Your task to perform on an android device: Open the calendar app, open the side menu, and click the "Day" option Image 0: 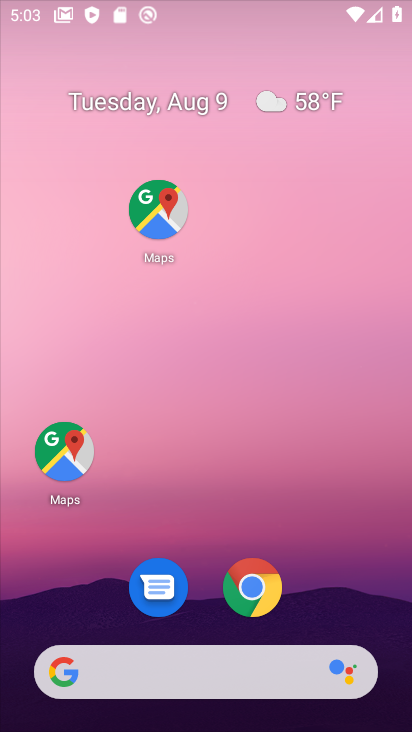
Step 0: drag from (275, 543) to (237, 296)
Your task to perform on an android device: Open the calendar app, open the side menu, and click the "Day" option Image 1: 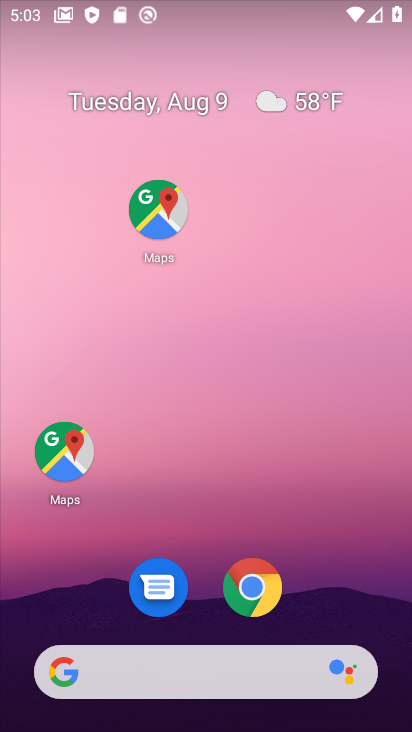
Step 1: drag from (195, 659) to (143, 202)
Your task to perform on an android device: Open the calendar app, open the side menu, and click the "Day" option Image 2: 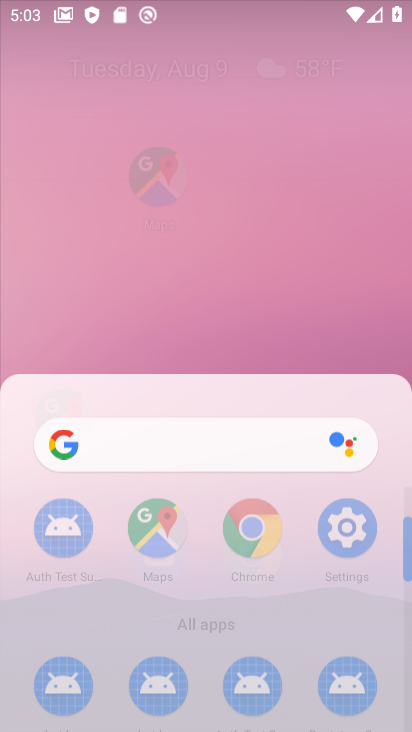
Step 2: drag from (210, 504) to (247, 215)
Your task to perform on an android device: Open the calendar app, open the side menu, and click the "Day" option Image 3: 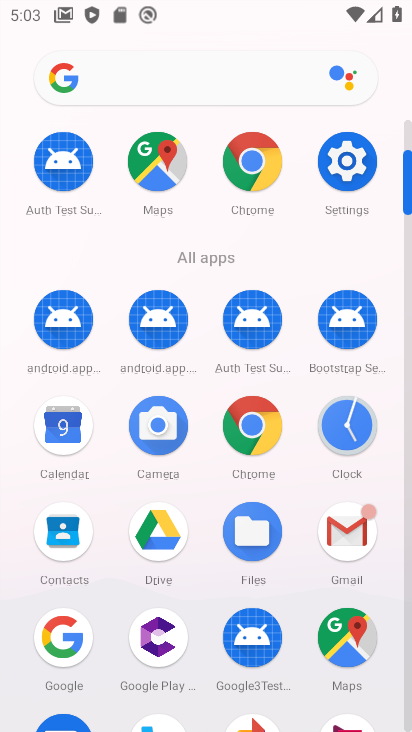
Step 3: click (64, 431)
Your task to perform on an android device: Open the calendar app, open the side menu, and click the "Day" option Image 4: 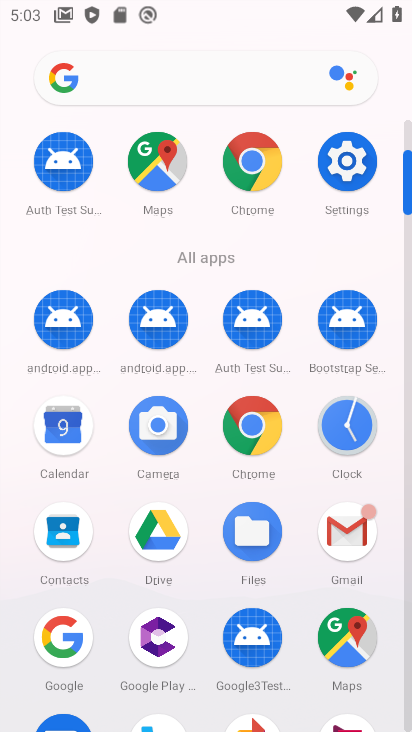
Step 4: click (63, 431)
Your task to perform on an android device: Open the calendar app, open the side menu, and click the "Day" option Image 5: 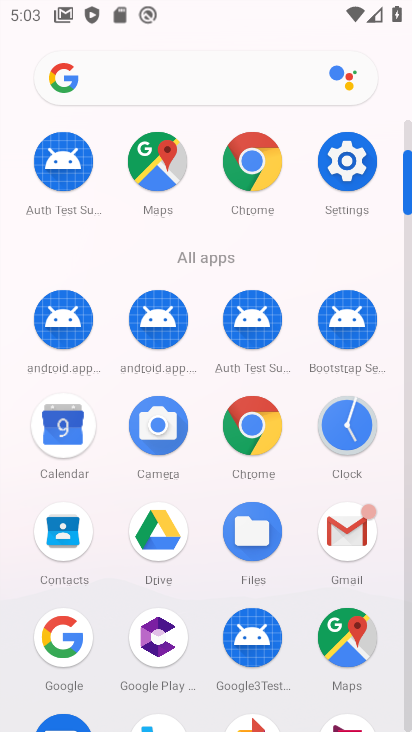
Step 5: click (62, 432)
Your task to perform on an android device: Open the calendar app, open the side menu, and click the "Day" option Image 6: 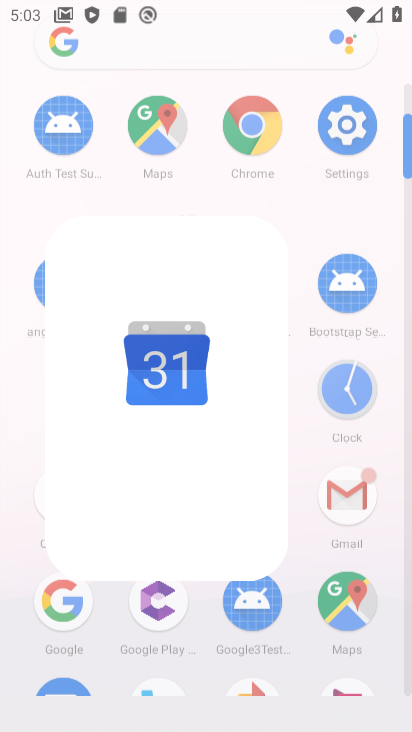
Step 6: click (62, 432)
Your task to perform on an android device: Open the calendar app, open the side menu, and click the "Day" option Image 7: 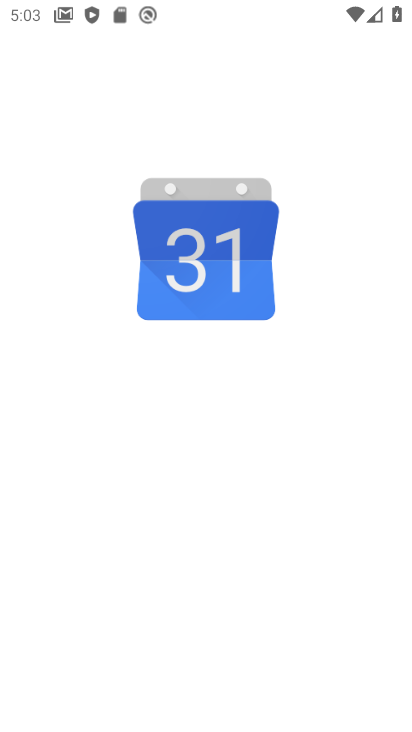
Step 7: click (74, 434)
Your task to perform on an android device: Open the calendar app, open the side menu, and click the "Day" option Image 8: 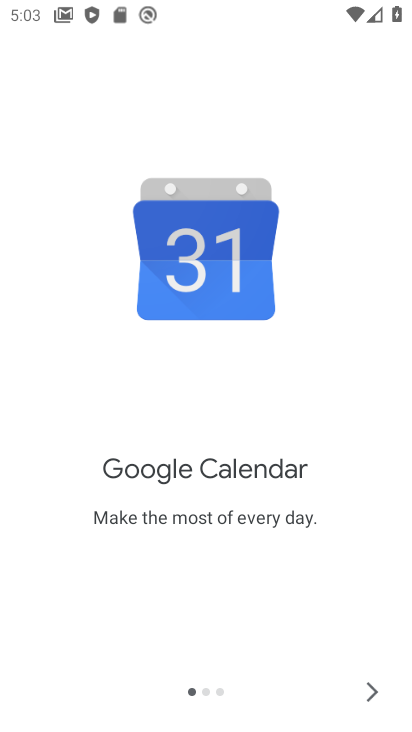
Step 8: click (377, 689)
Your task to perform on an android device: Open the calendar app, open the side menu, and click the "Day" option Image 9: 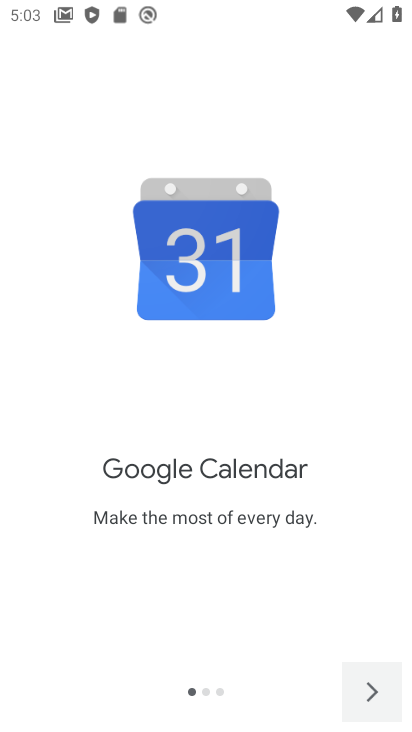
Step 9: click (375, 690)
Your task to perform on an android device: Open the calendar app, open the side menu, and click the "Day" option Image 10: 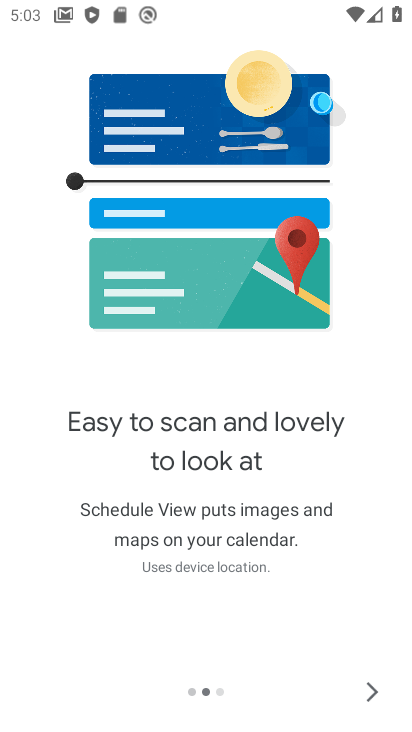
Step 10: click (375, 690)
Your task to perform on an android device: Open the calendar app, open the side menu, and click the "Day" option Image 11: 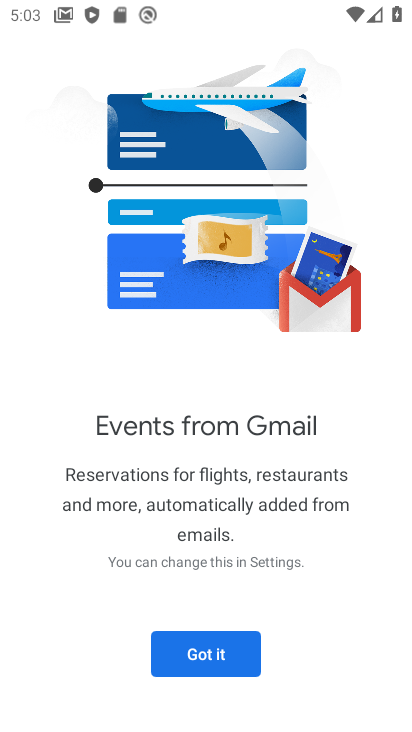
Step 11: click (381, 680)
Your task to perform on an android device: Open the calendar app, open the side menu, and click the "Day" option Image 12: 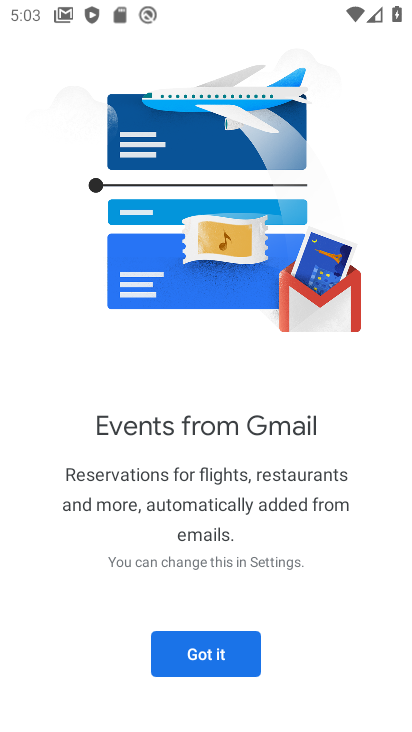
Step 12: click (383, 690)
Your task to perform on an android device: Open the calendar app, open the side menu, and click the "Day" option Image 13: 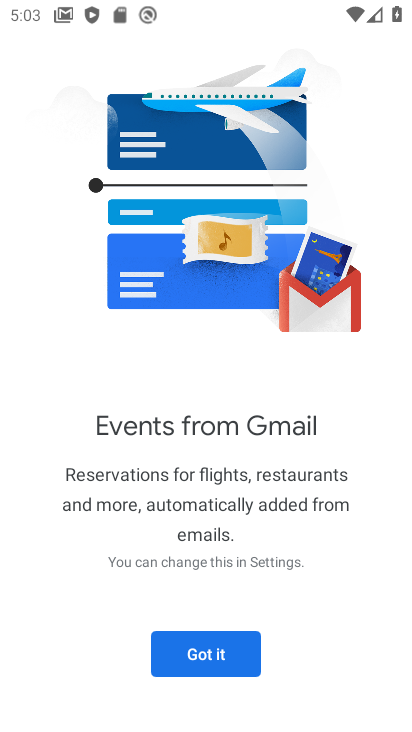
Step 13: click (382, 692)
Your task to perform on an android device: Open the calendar app, open the side menu, and click the "Day" option Image 14: 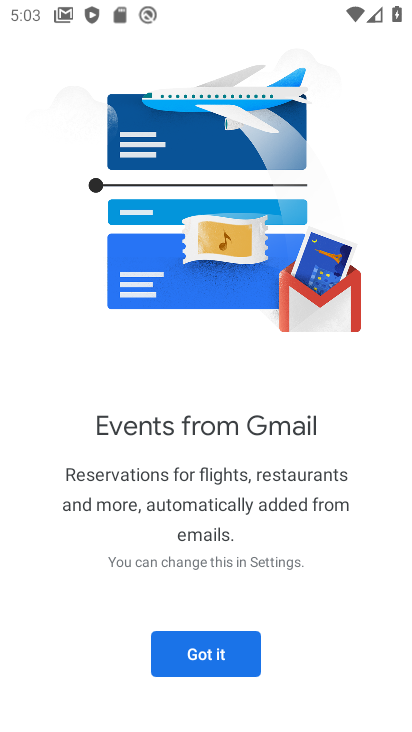
Step 14: drag from (198, 650) to (245, 663)
Your task to perform on an android device: Open the calendar app, open the side menu, and click the "Day" option Image 15: 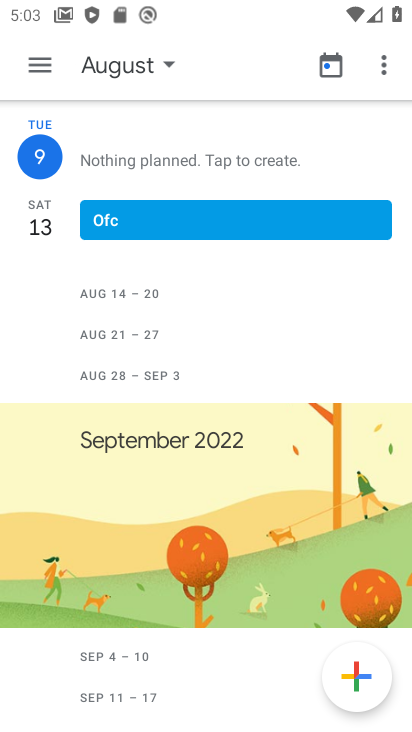
Step 15: click (42, 62)
Your task to perform on an android device: Open the calendar app, open the side menu, and click the "Day" option Image 16: 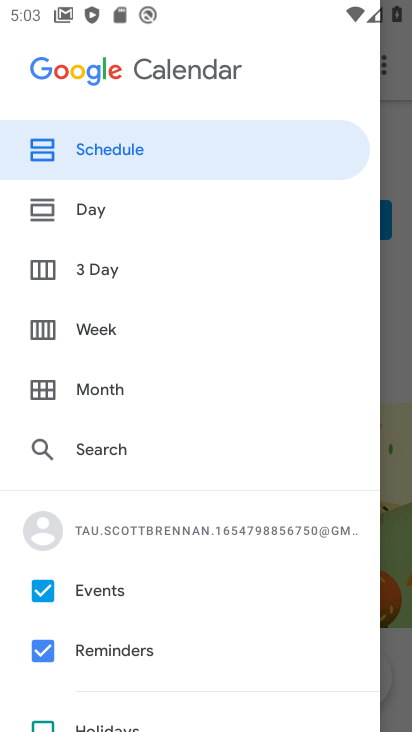
Step 16: click (91, 220)
Your task to perform on an android device: Open the calendar app, open the side menu, and click the "Day" option Image 17: 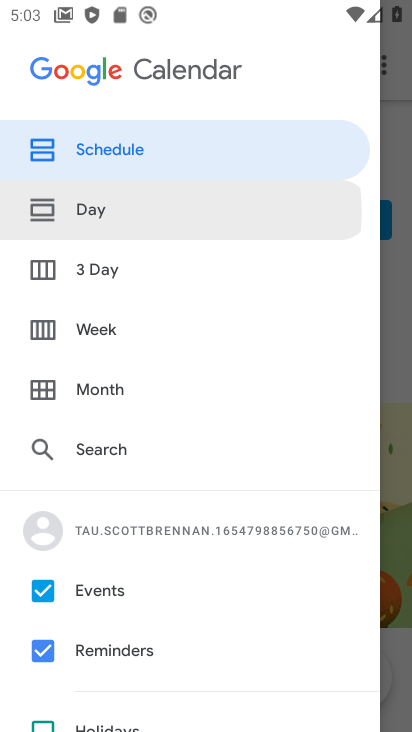
Step 17: click (85, 215)
Your task to perform on an android device: Open the calendar app, open the side menu, and click the "Day" option Image 18: 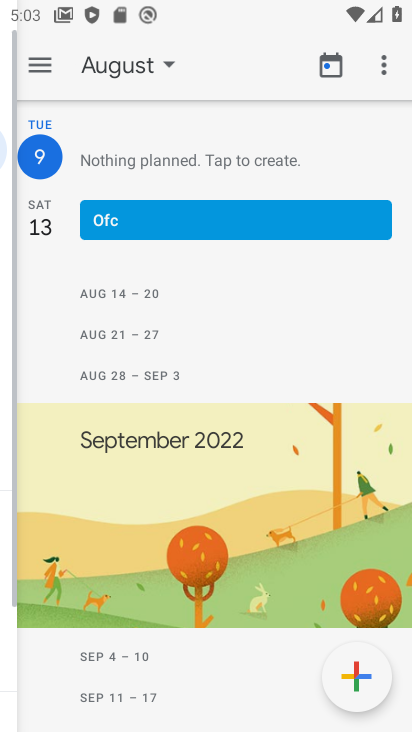
Step 18: click (85, 215)
Your task to perform on an android device: Open the calendar app, open the side menu, and click the "Day" option Image 19: 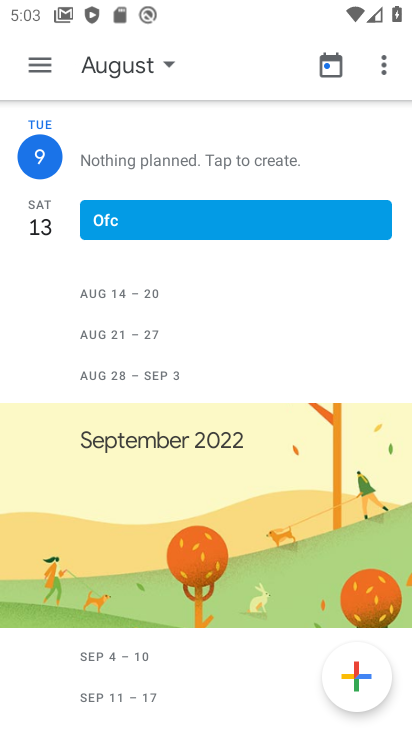
Step 19: click (87, 216)
Your task to perform on an android device: Open the calendar app, open the side menu, and click the "Day" option Image 20: 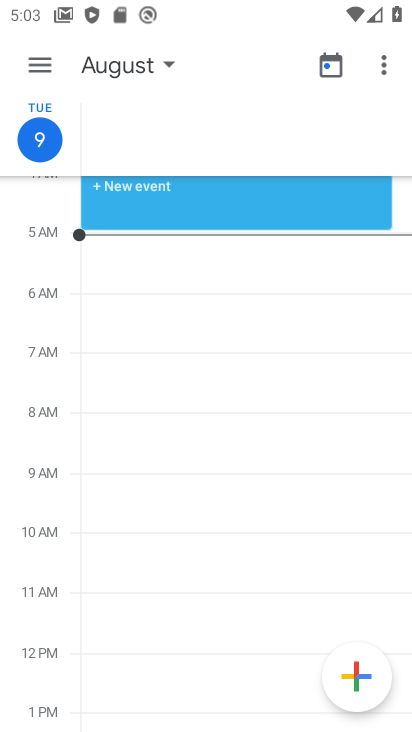
Step 20: task complete